Your task to perform on an android device: Open Reddit.com Image 0: 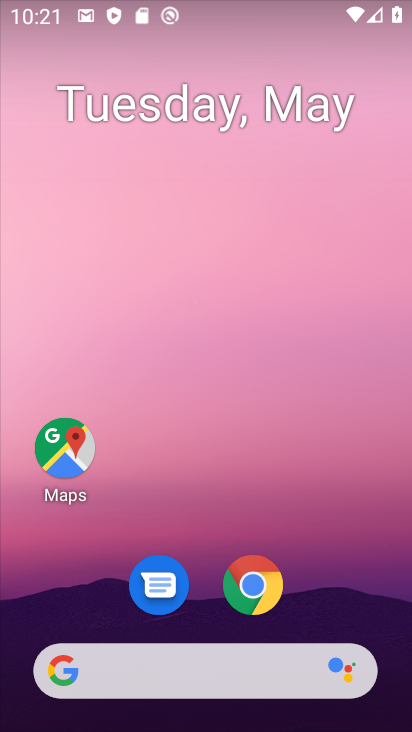
Step 0: click (235, 674)
Your task to perform on an android device: Open Reddit.com Image 1: 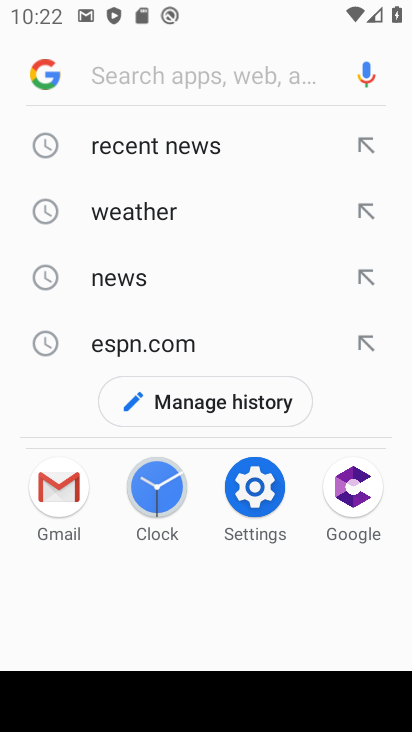
Step 1: type "reddit.com"
Your task to perform on an android device: Open Reddit.com Image 2: 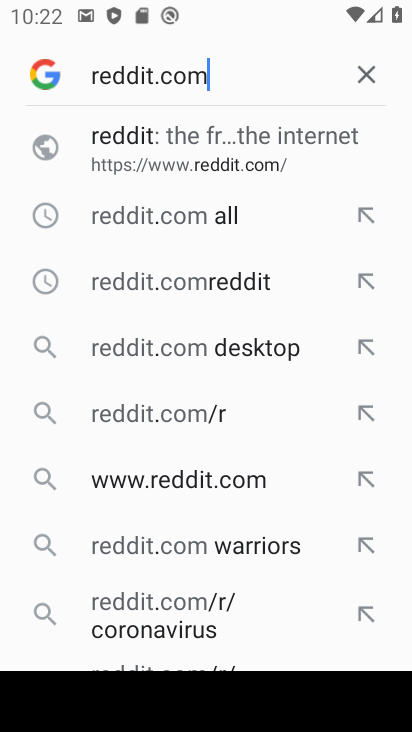
Step 2: click (111, 140)
Your task to perform on an android device: Open Reddit.com Image 3: 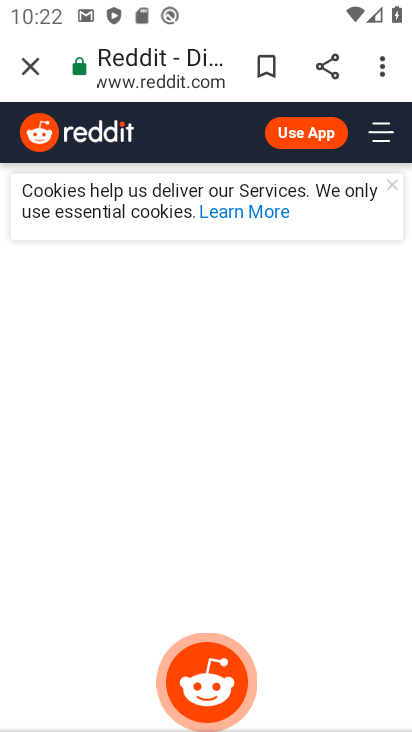
Step 3: task complete